Your task to perform on an android device: change alarm snooze length Image 0: 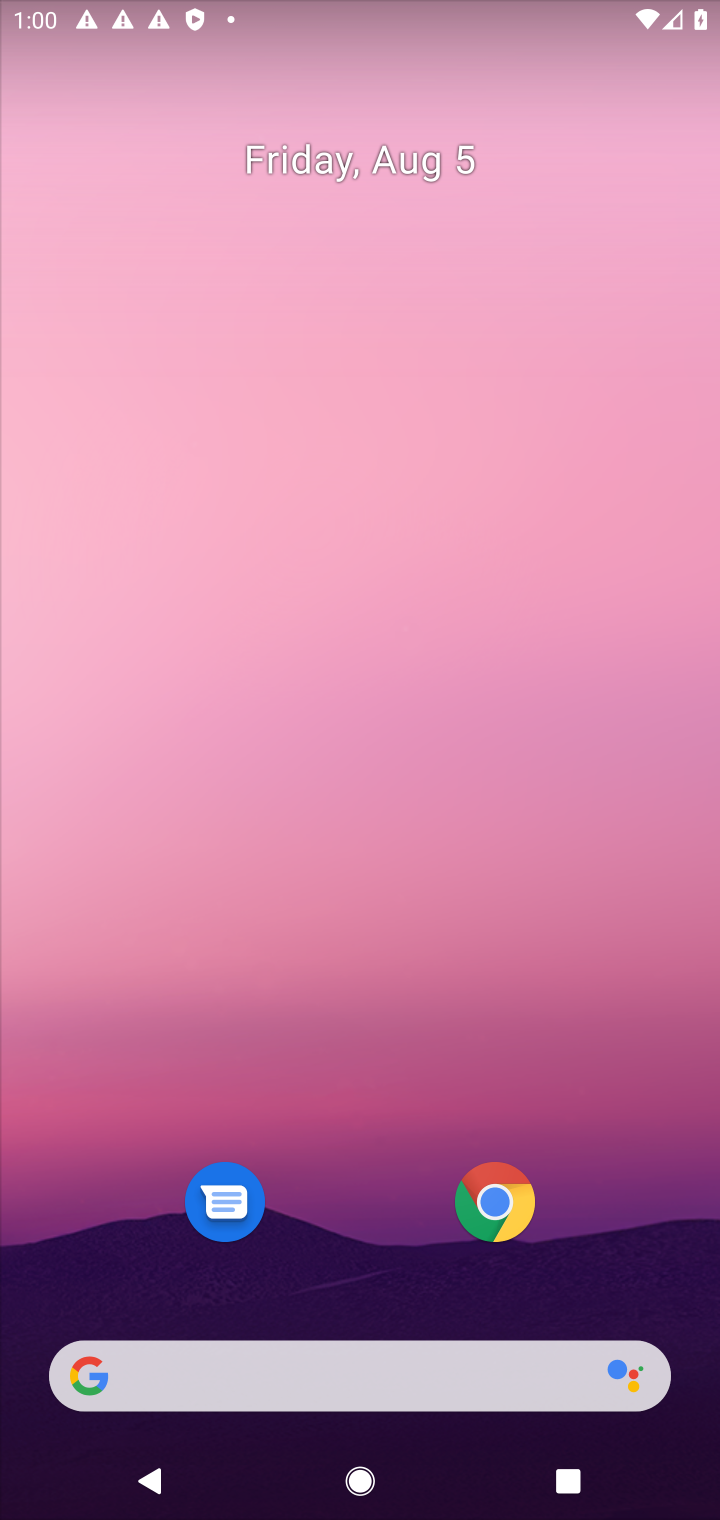
Step 0: drag from (622, 1182) to (586, 208)
Your task to perform on an android device: change alarm snooze length Image 1: 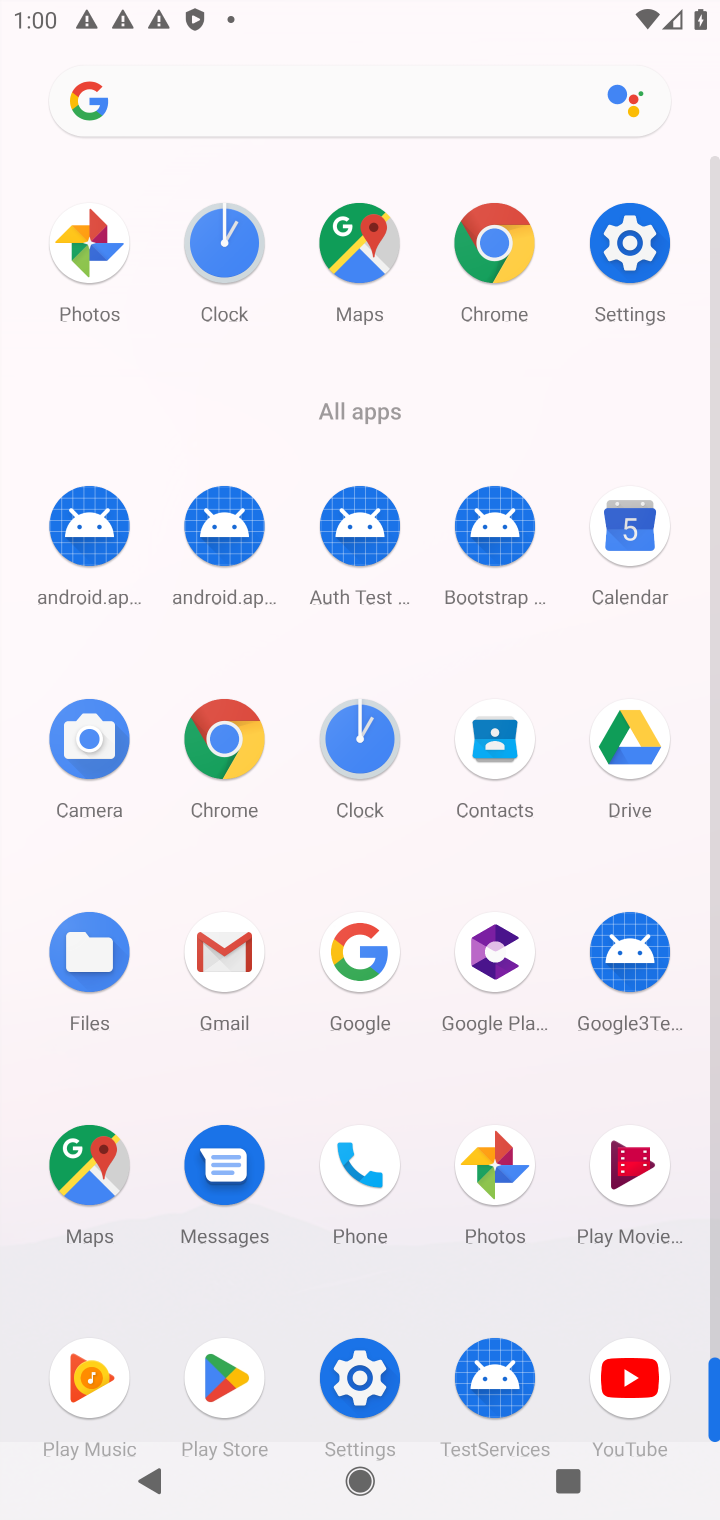
Step 1: click (364, 711)
Your task to perform on an android device: change alarm snooze length Image 2: 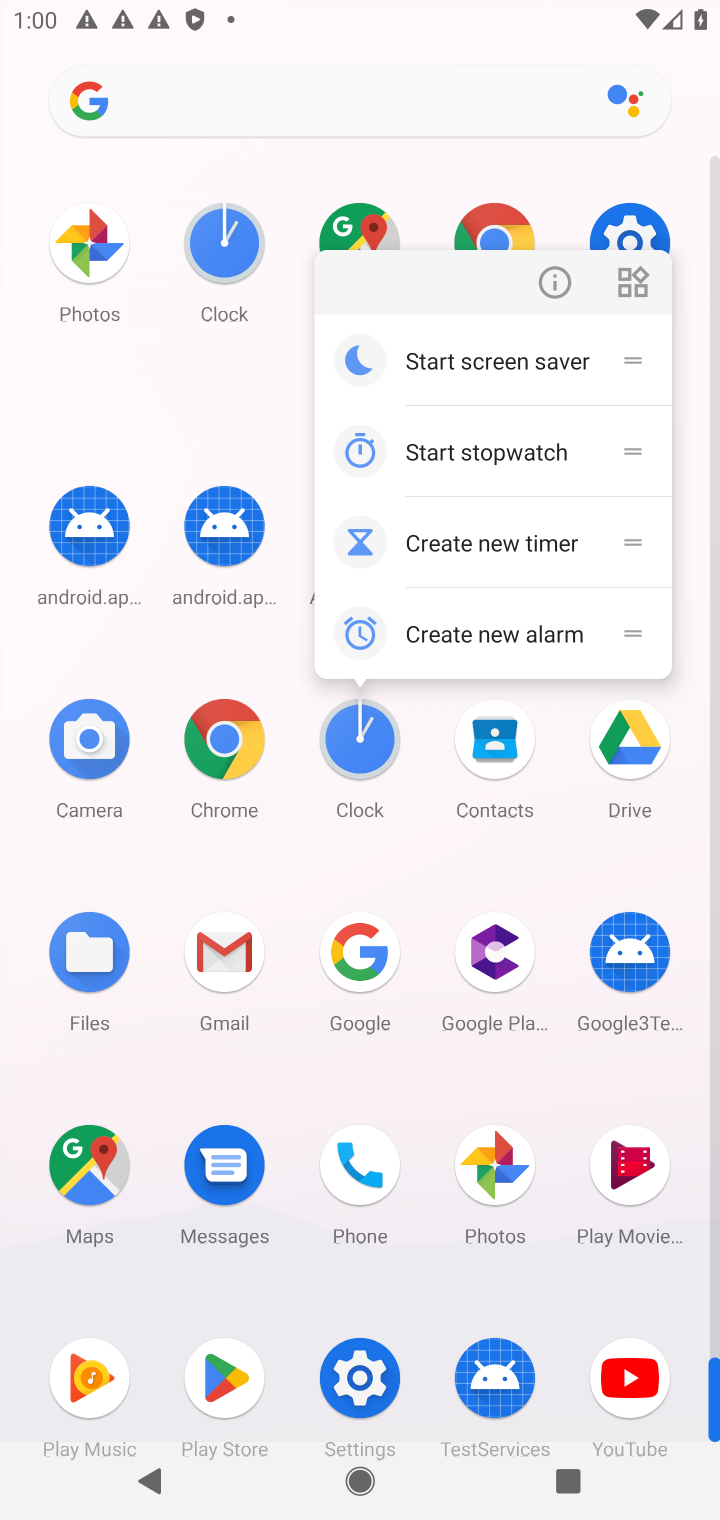
Step 2: click (353, 738)
Your task to perform on an android device: change alarm snooze length Image 3: 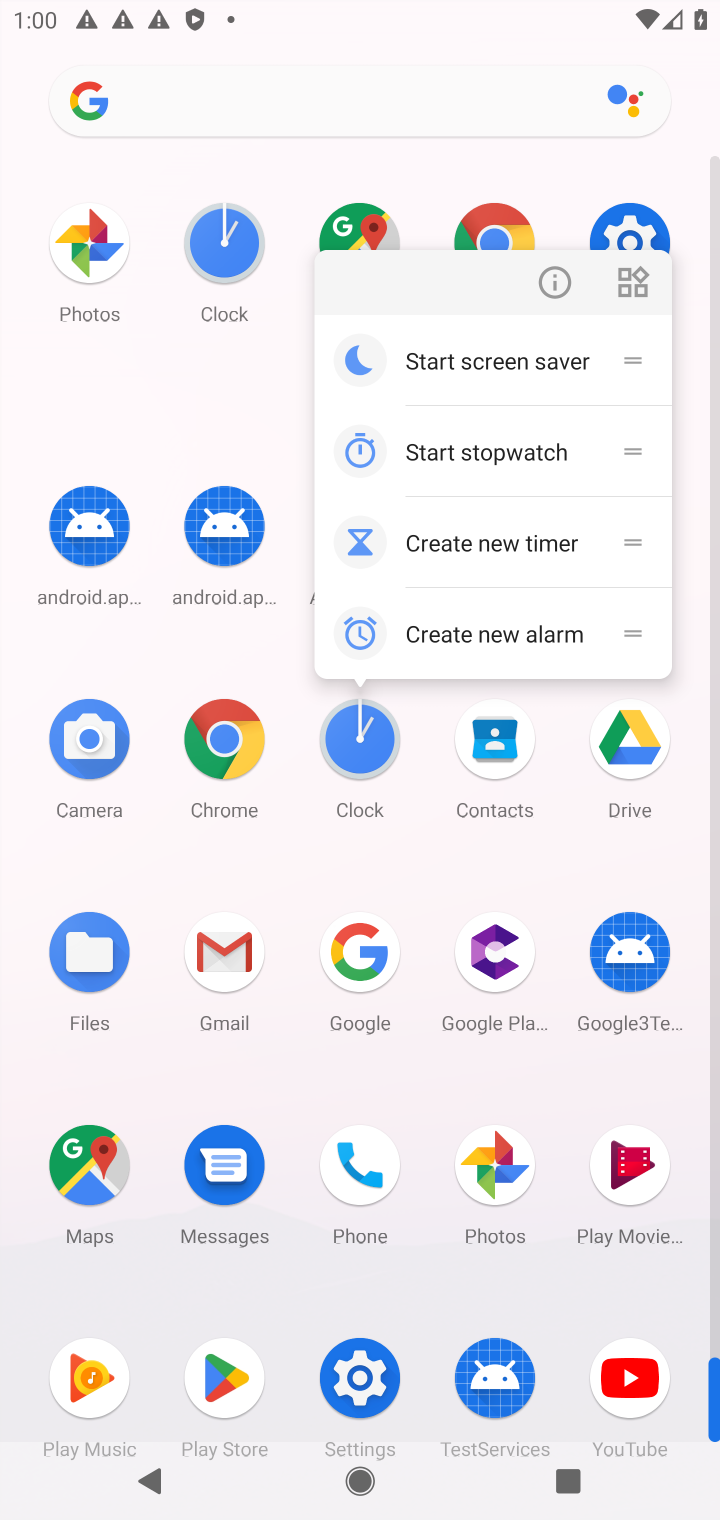
Step 3: click (353, 738)
Your task to perform on an android device: change alarm snooze length Image 4: 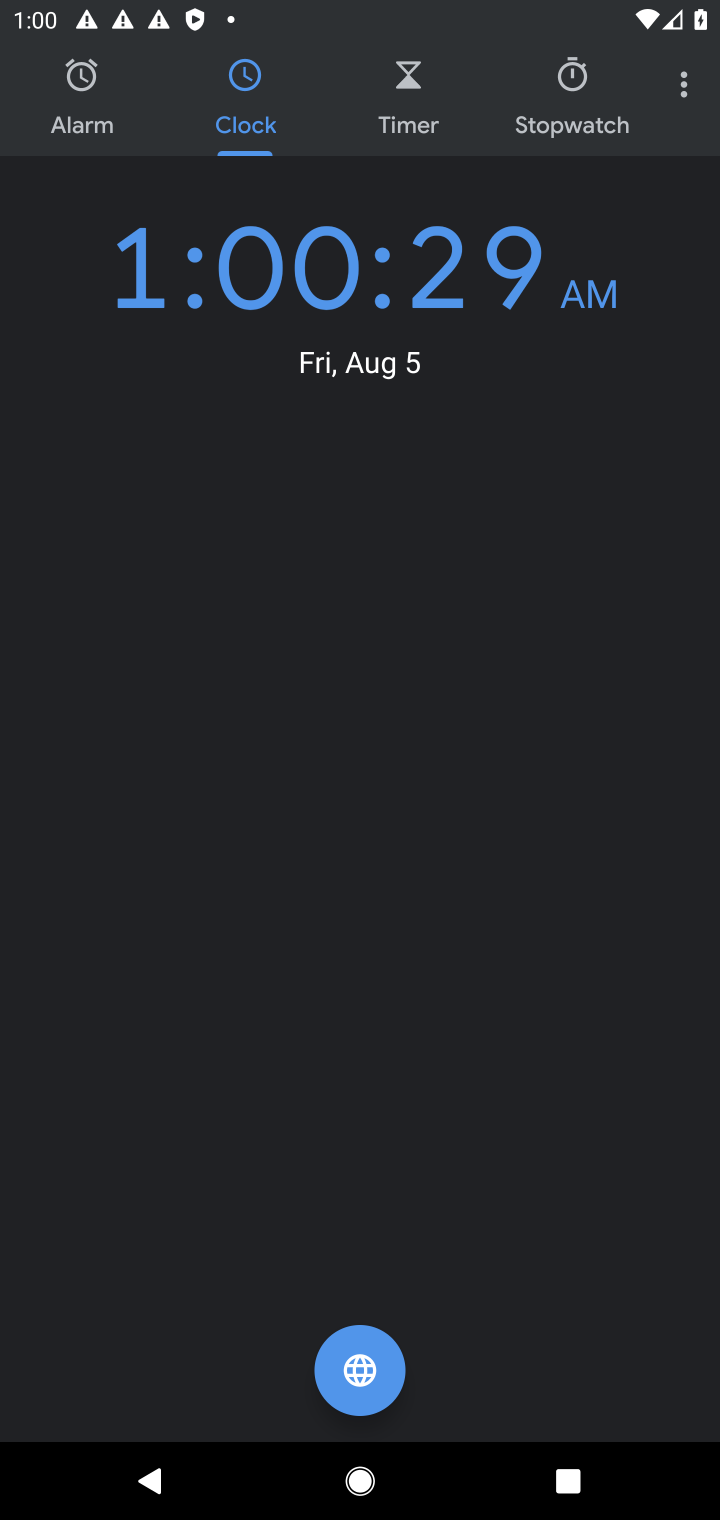
Step 4: click (681, 95)
Your task to perform on an android device: change alarm snooze length Image 5: 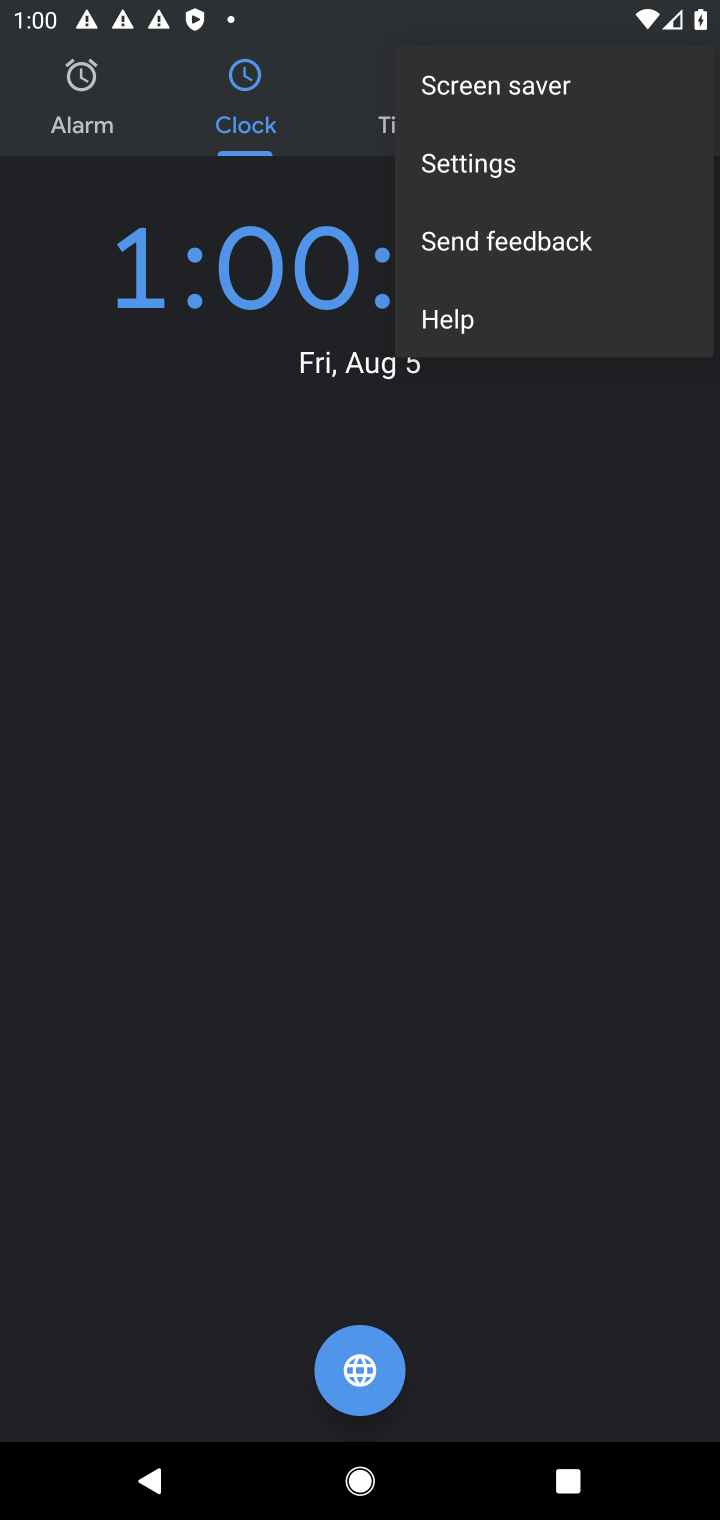
Step 5: click (502, 173)
Your task to perform on an android device: change alarm snooze length Image 6: 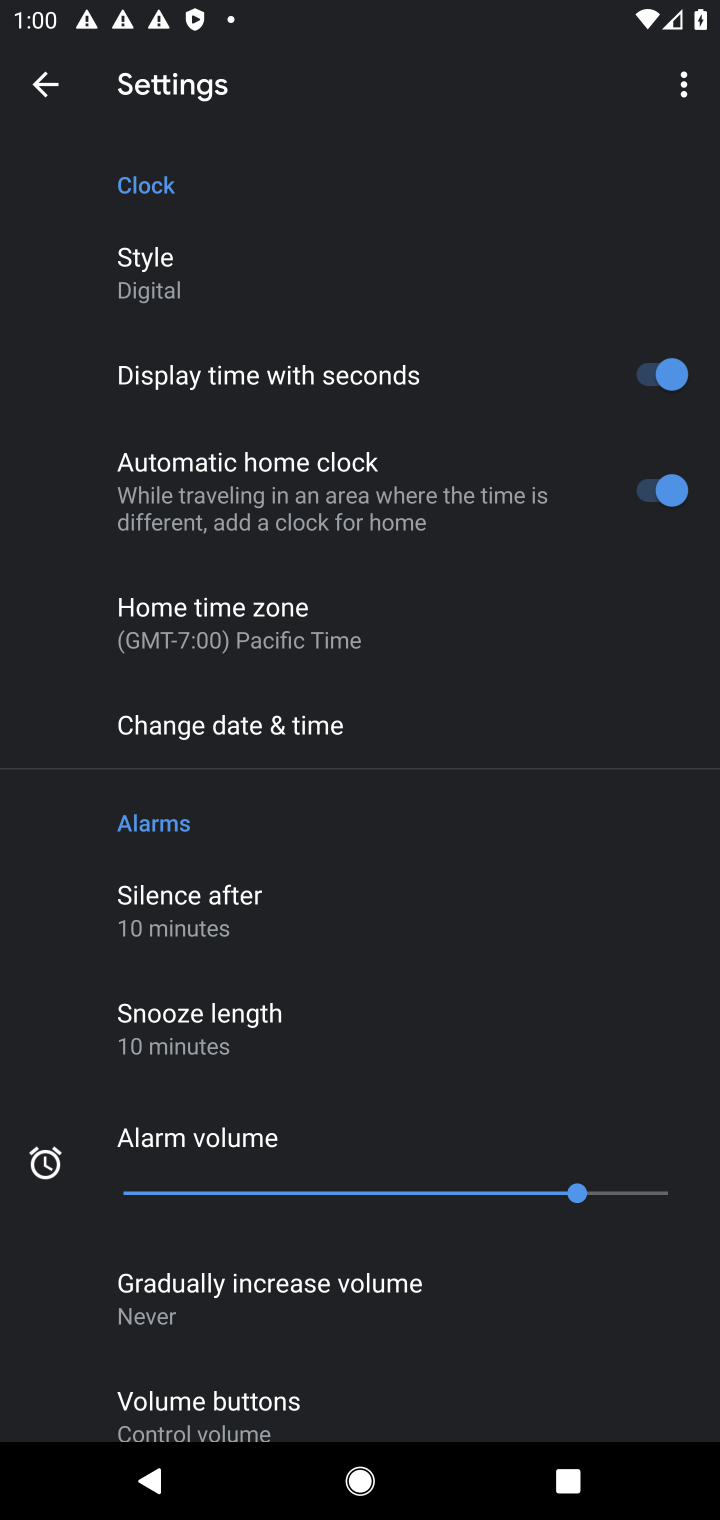
Step 6: click (268, 1026)
Your task to perform on an android device: change alarm snooze length Image 7: 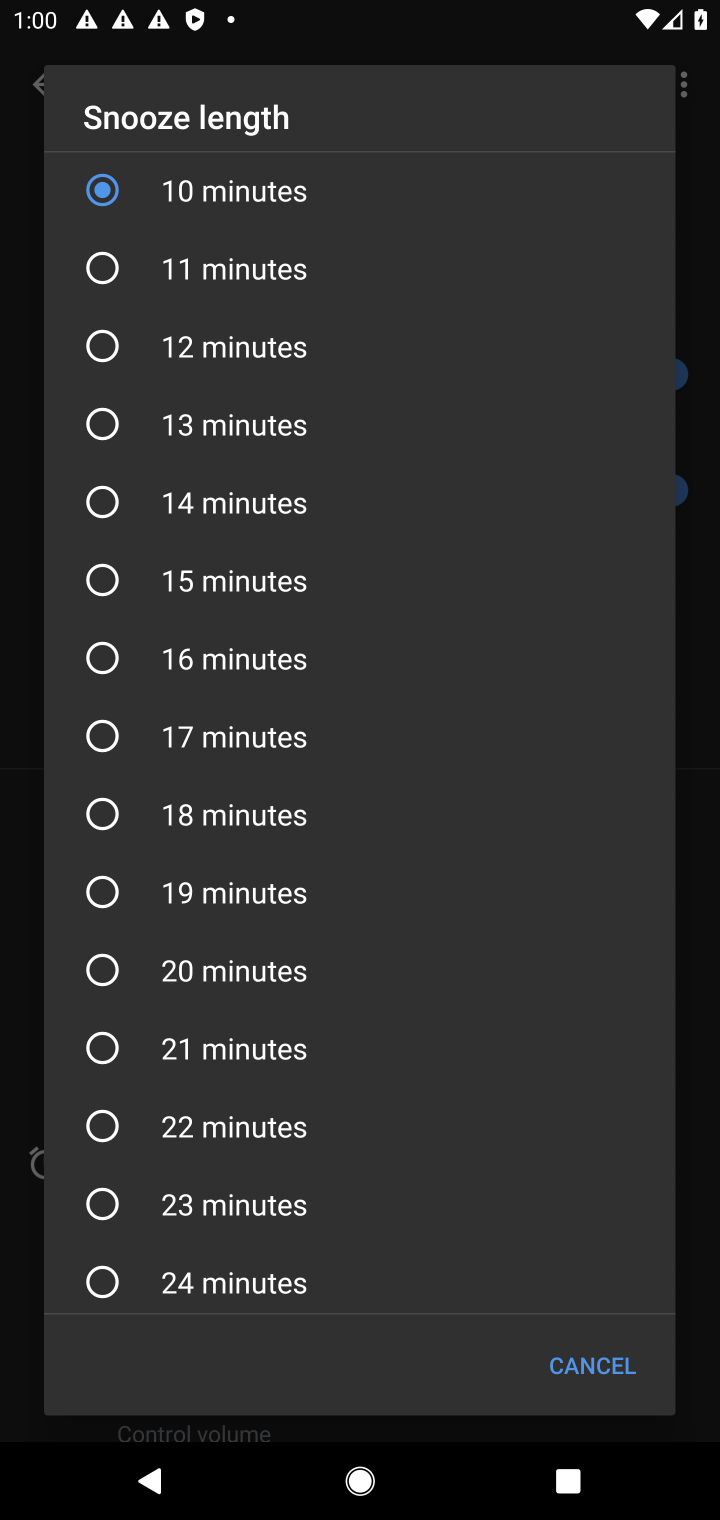
Step 7: click (237, 291)
Your task to perform on an android device: change alarm snooze length Image 8: 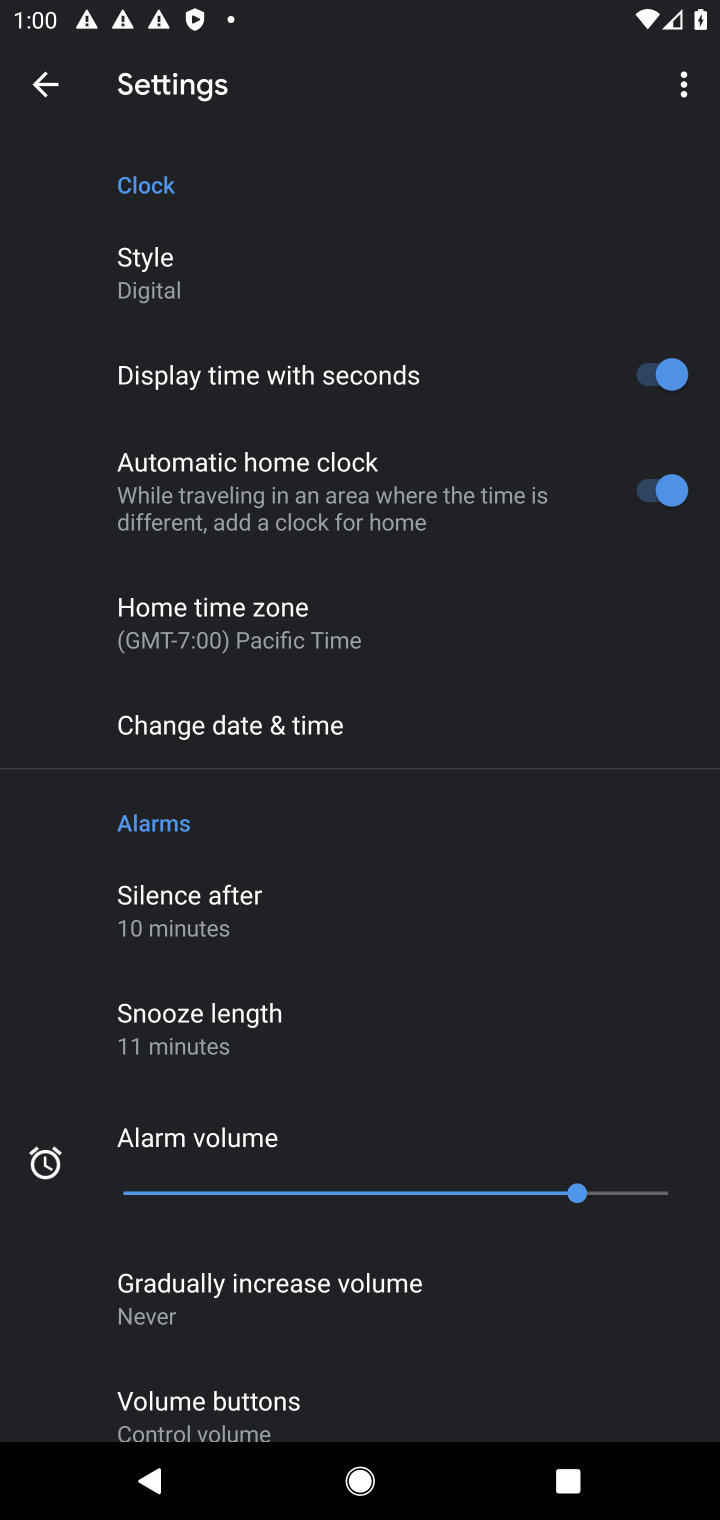
Step 8: task complete